Your task to perform on an android device: snooze an email in the gmail app Image 0: 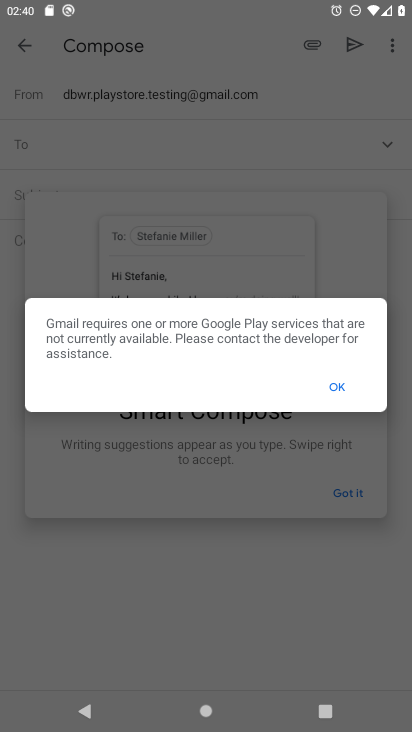
Step 0: press home button
Your task to perform on an android device: snooze an email in the gmail app Image 1: 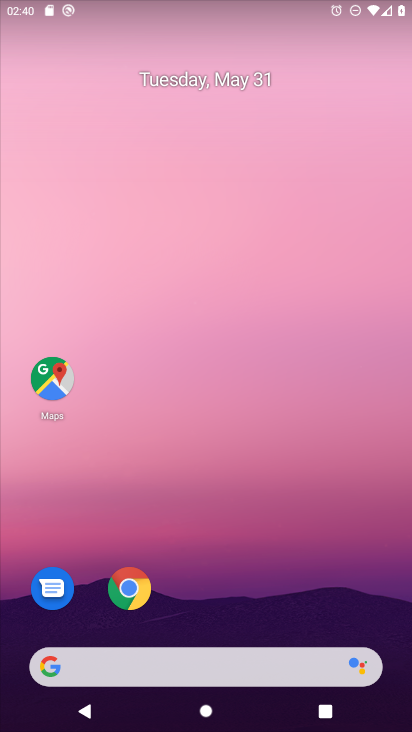
Step 1: drag from (232, 685) to (11, 41)
Your task to perform on an android device: snooze an email in the gmail app Image 2: 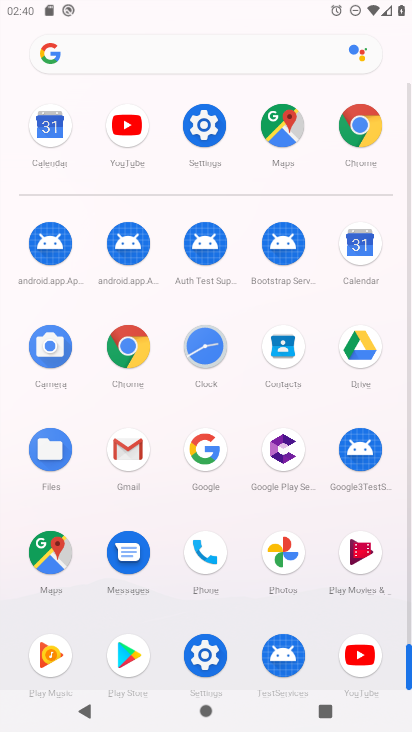
Step 2: click (132, 453)
Your task to perform on an android device: snooze an email in the gmail app Image 3: 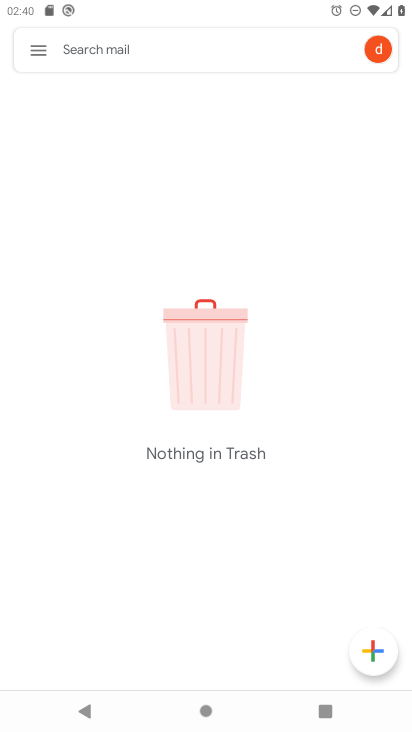
Step 3: click (40, 46)
Your task to perform on an android device: snooze an email in the gmail app Image 4: 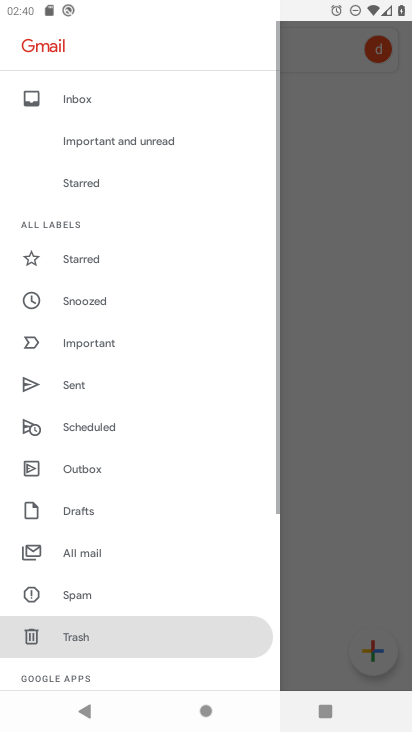
Step 4: click (98, 310)
Your task to perform on an android device: snooze an email in the gmail app Image 5: 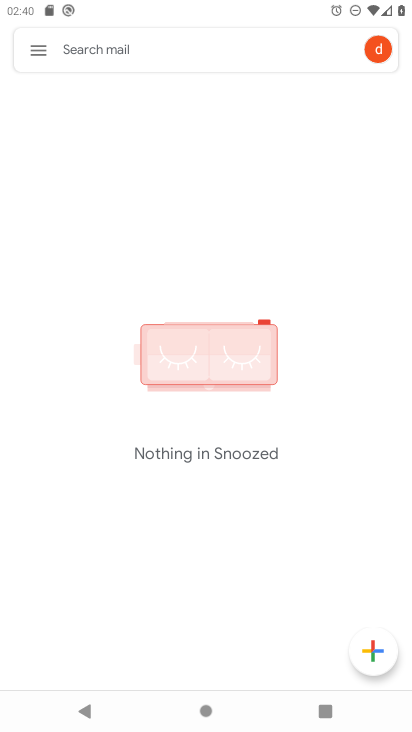
Step 5: task complete